Your task to perform on an android device: open app "PUBG MOBILE" (install if not already installed) and enter user name: "phenomenologically@gmail.com" and password: "artillery" Image 0: 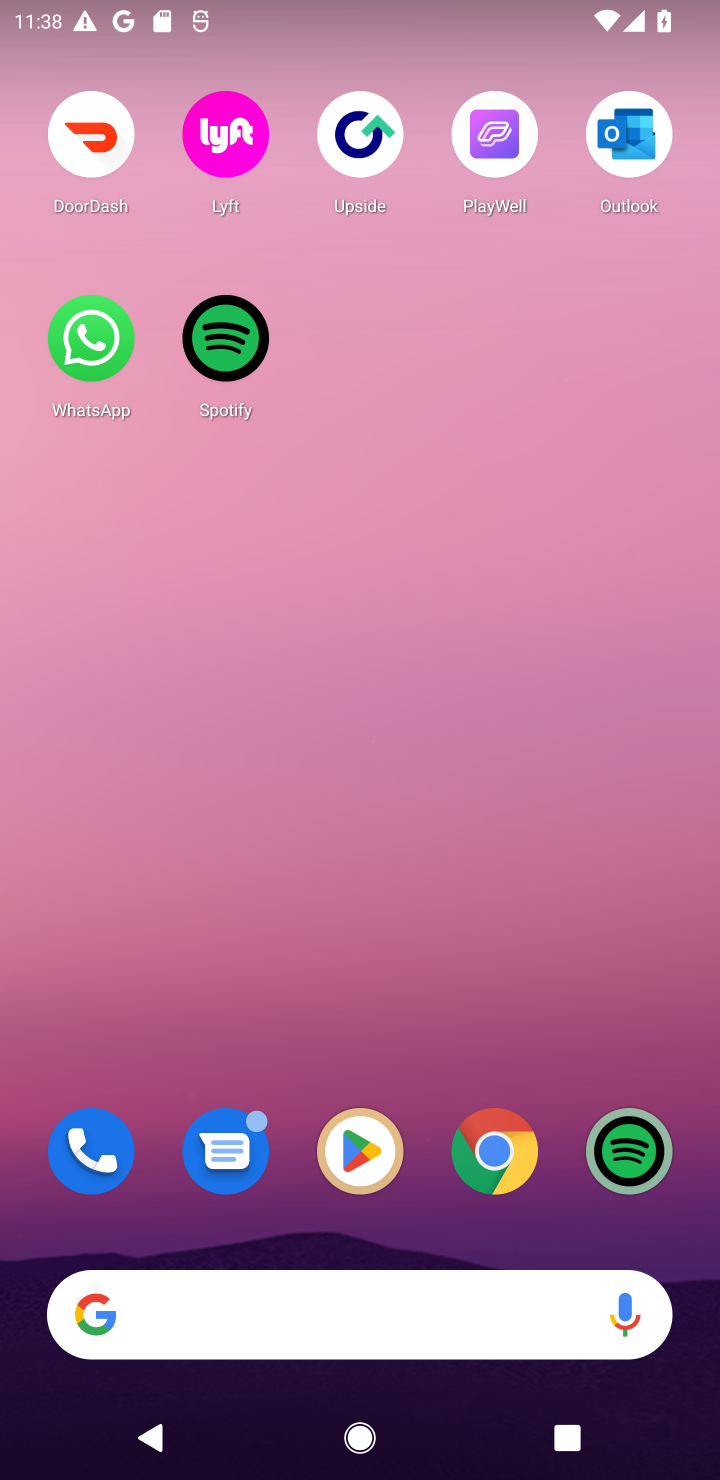
Step 0: click (337, 1146)
Your task to perform on an android device: open app "PUBG MOBILE" (install if not already installed) and enter user name: "phenomenologically@gmail.com" and password: "artillery" Image 1: 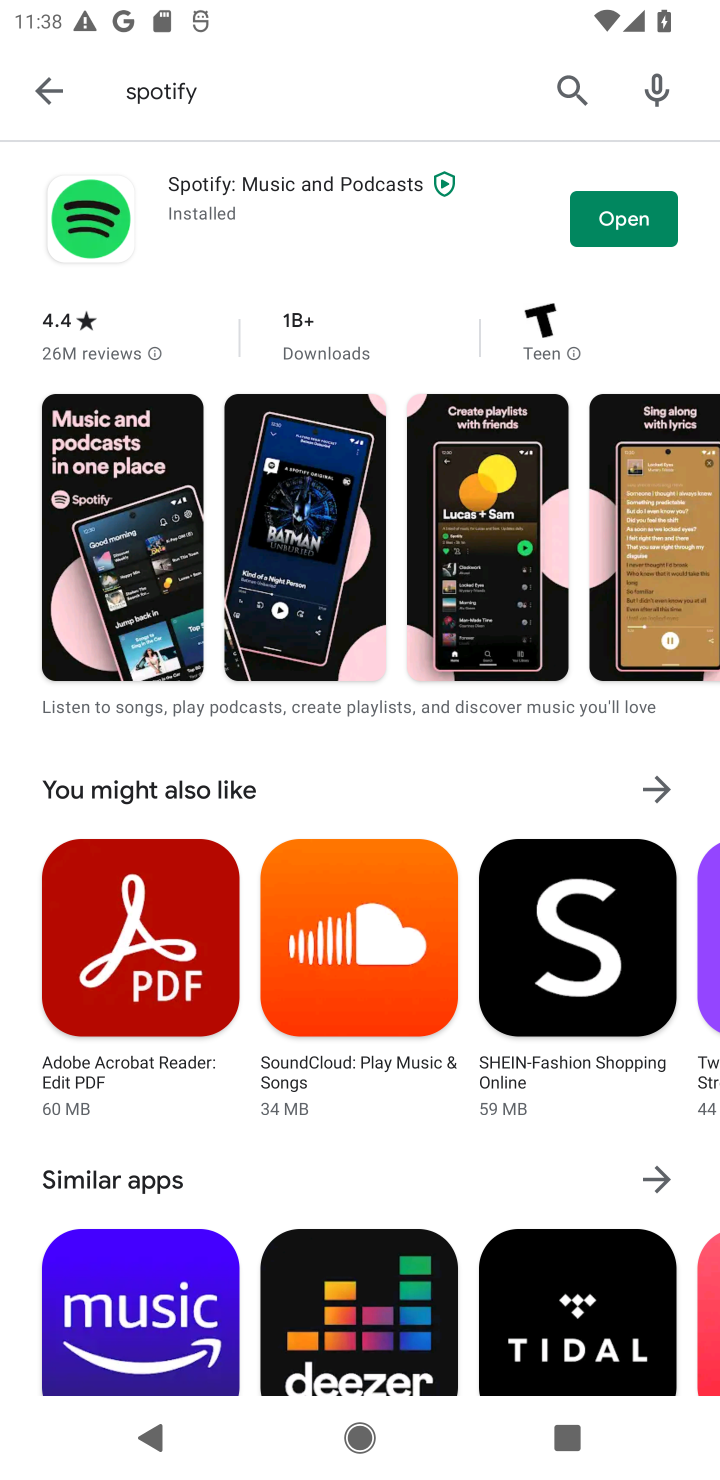
Step 1: click (565, 79)
Your task to perform on an android device: open app "PUBG MOBILE" (install if not already installed) and enter user name: "phenomenologically@gmail.com" and password: "artillery" Image 2: 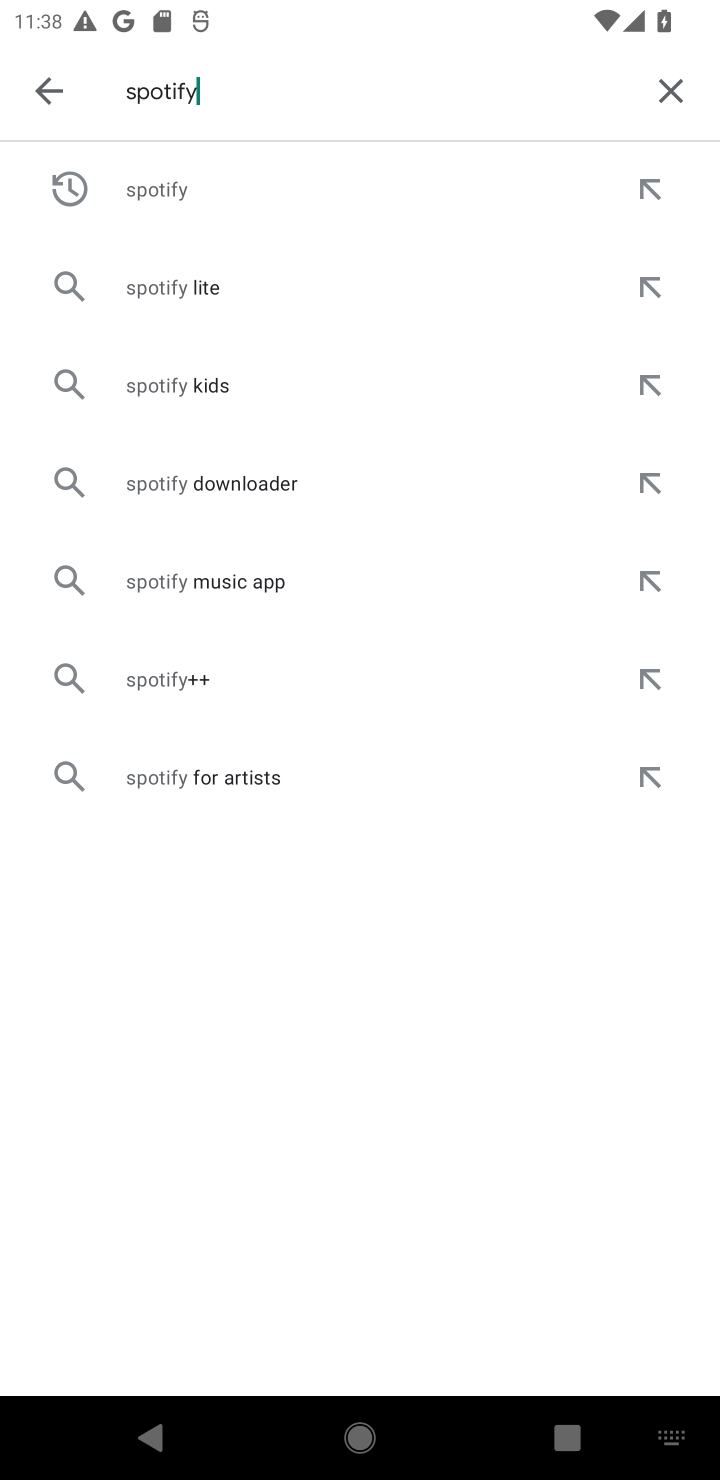
Step 2: click (650, 78)
Your task to perform on an android device: open app "PUBG MOBILE" (install if not already installed) and enter user name: "phenomenologically@gmail.com" and password: "artillery" Image 3: 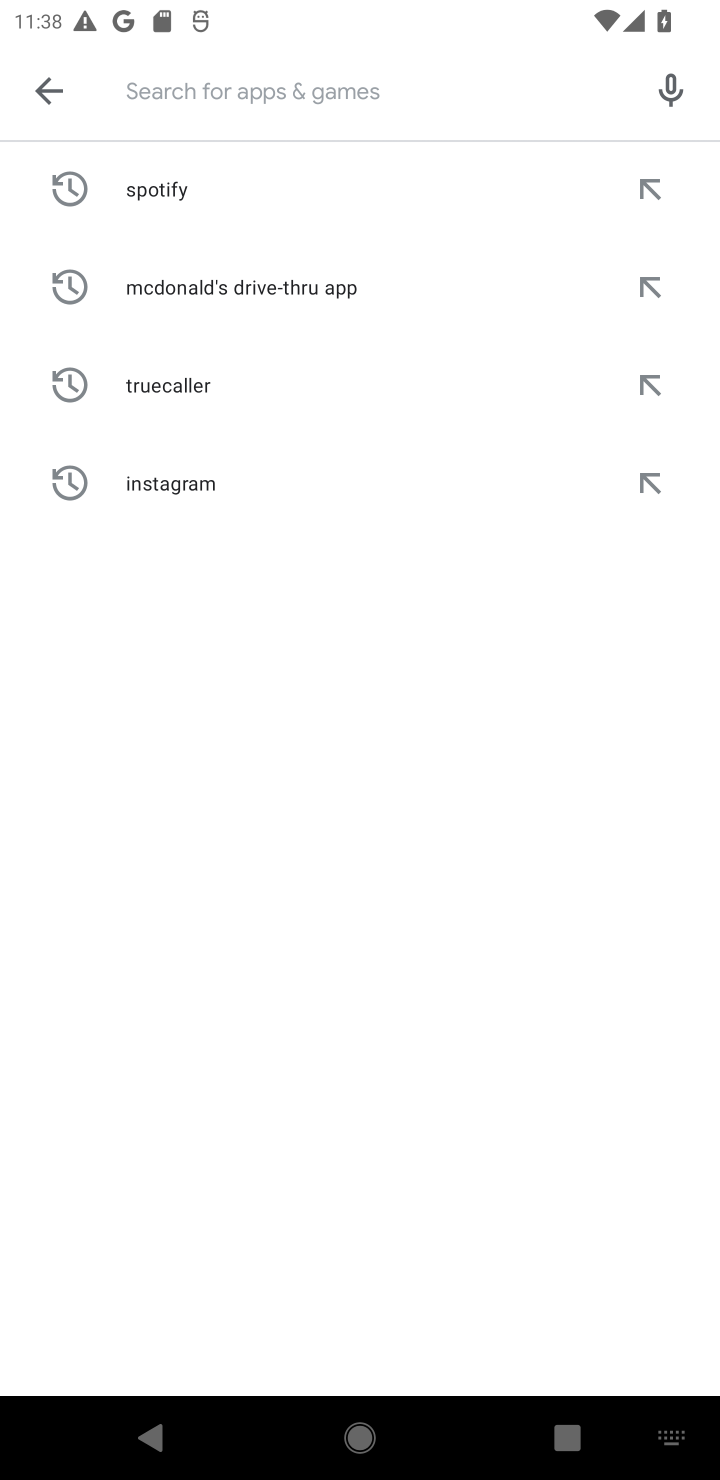
Step 3: type "PUBG MOBILE"
Your task to perform on an android device: open app "PUBG MOBILE" (install if not already installed) and enter user name: "phenomenologically@gmail.com" and password: "artillery" Image 4: 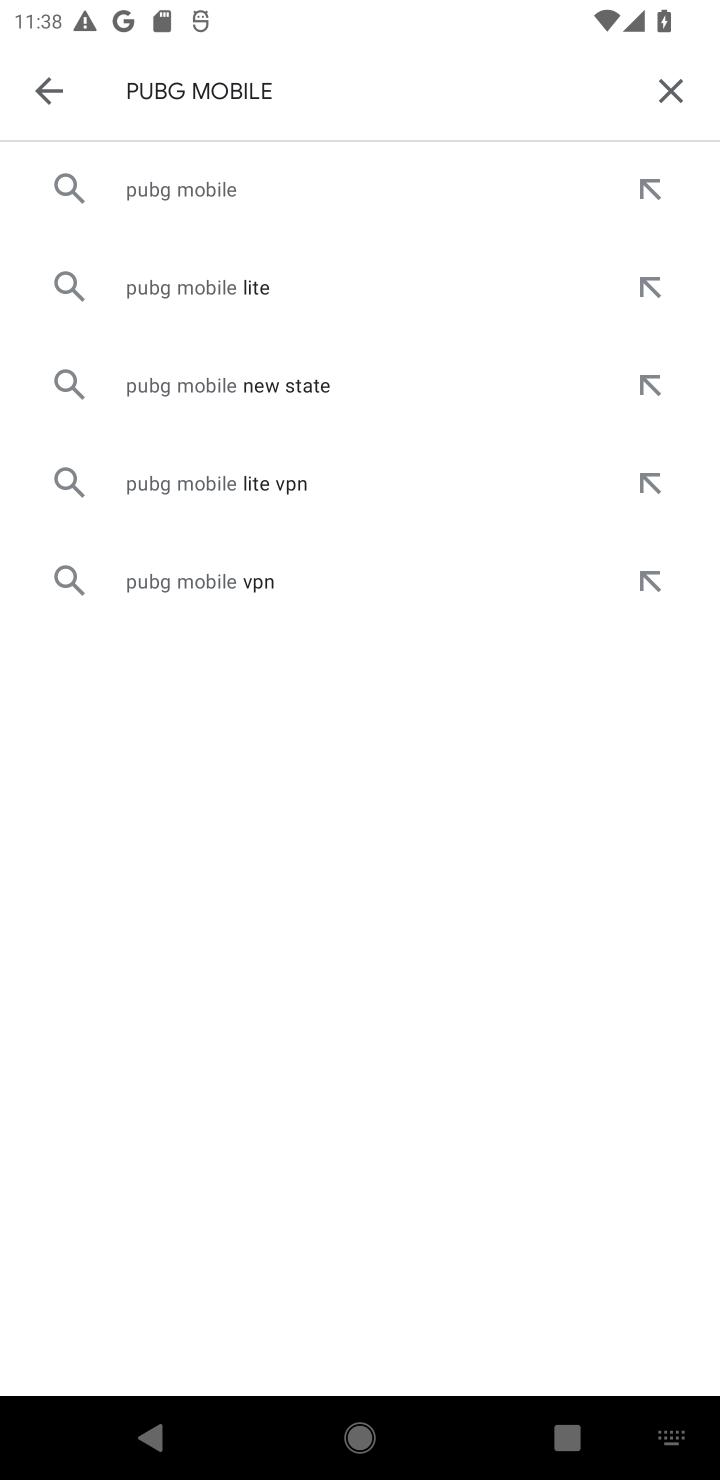
Step 4: click (295, 193)
Your task to perform on an android device: open app "PUBG MOBILE" (install if not already installed) and enter user name: "phenomenologically@gmail.com" and password: "artillery" Image 5: 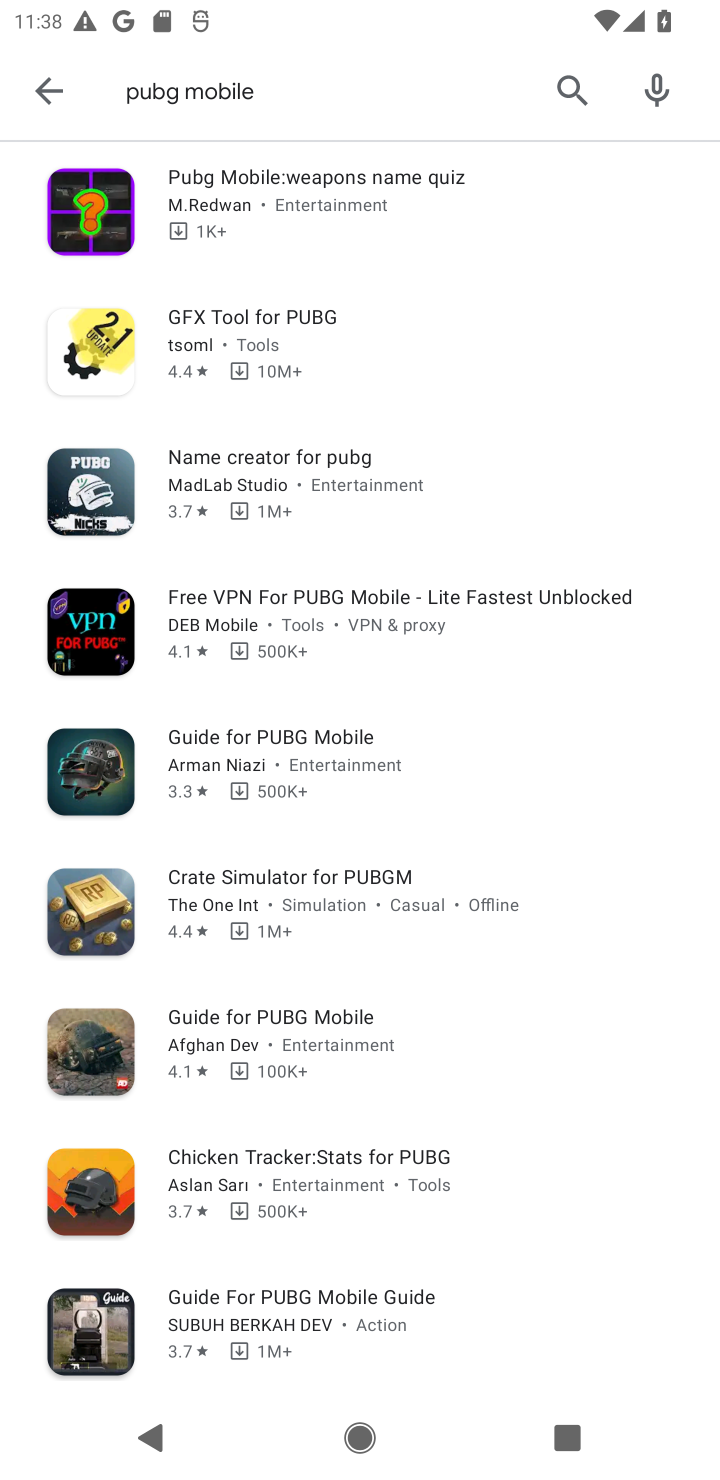
Step 5: task complete